Your task to perform on an android device: Open the calendar and show me this week's events? Image 0: 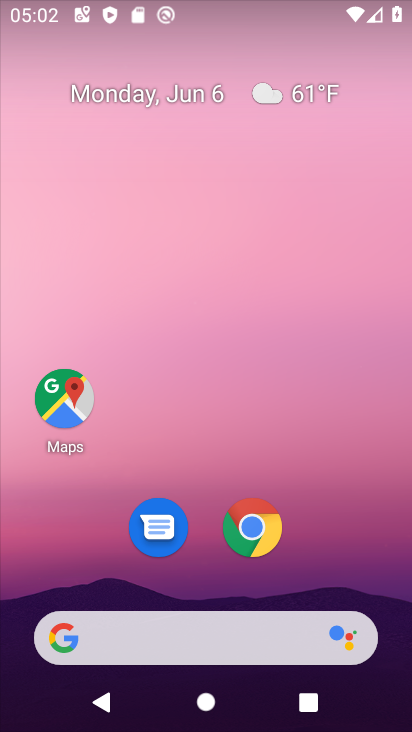
Step 0: drag from (399, 649) to (356, 103)
Your task to perform on an android device: Open the calendar and show me this week's events? Image 1: 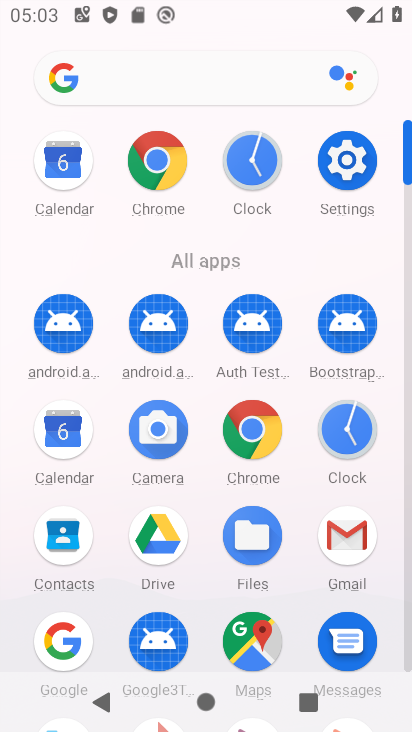
Step 1: click (73, 419)
Your task to perform on an android device: Open the calendar and show me this week's events? Image 2: 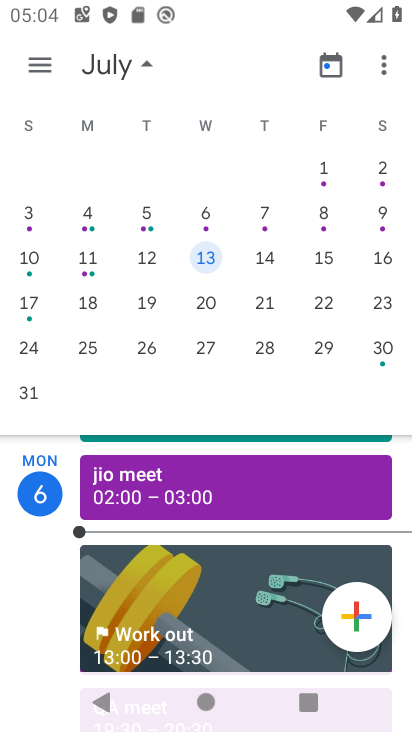
Step 2: drag from (81, 183) to (359, 204)
Your task to perform on an android device: Open the calendar and show me this week's events? Image 3: 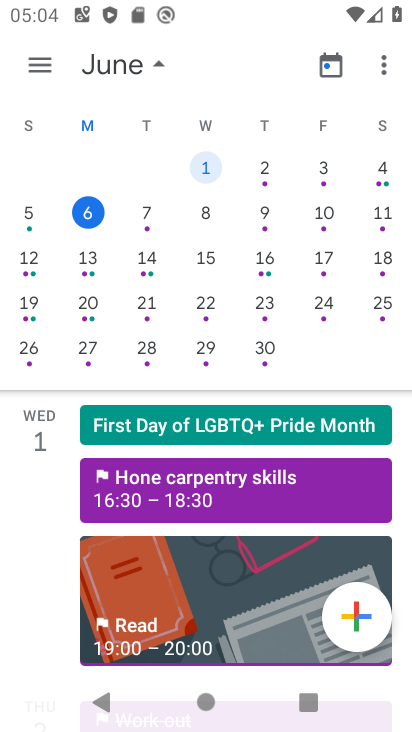
Step 3: click (43, 68)
Your task to perform on an android device: Open the calendar and show me this week's events? Image 4: 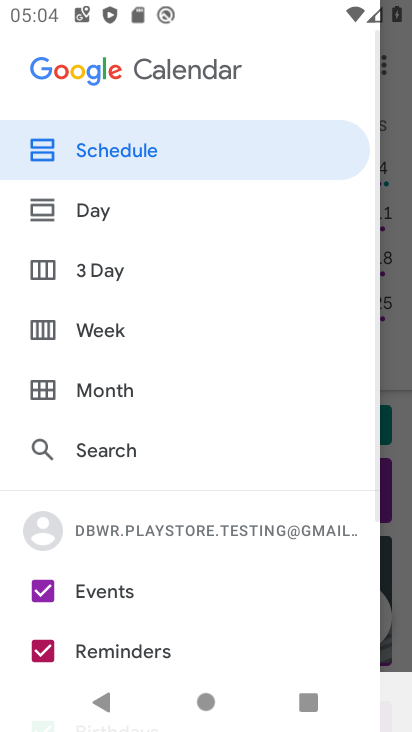
Step 4: click (95, 332)
Your task to perform on an android device: Open the calendar and show me this week's events? Image 5: 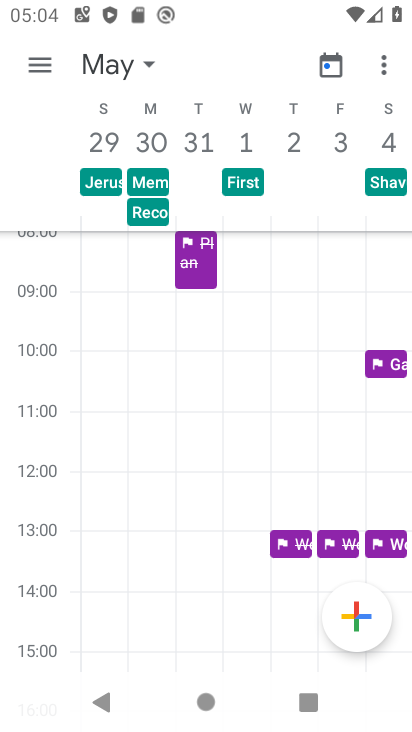
Step 5: task complete